Your task to perform on an android device: Turn on the flashlight Image 0: 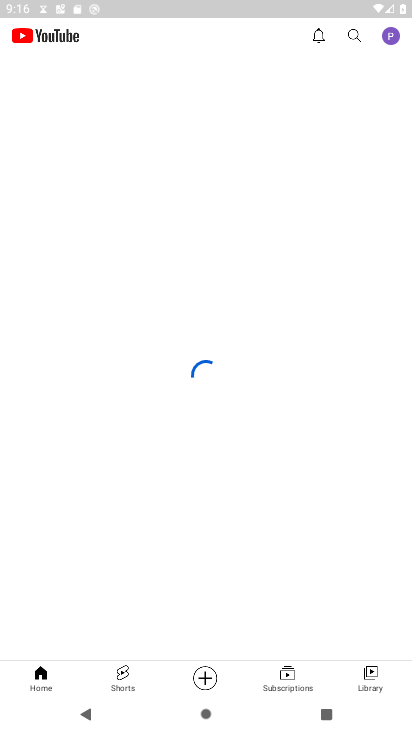
Step 0: click (47, 405)
Your task to perform on an android device: Turn on the flashlight Image 1: 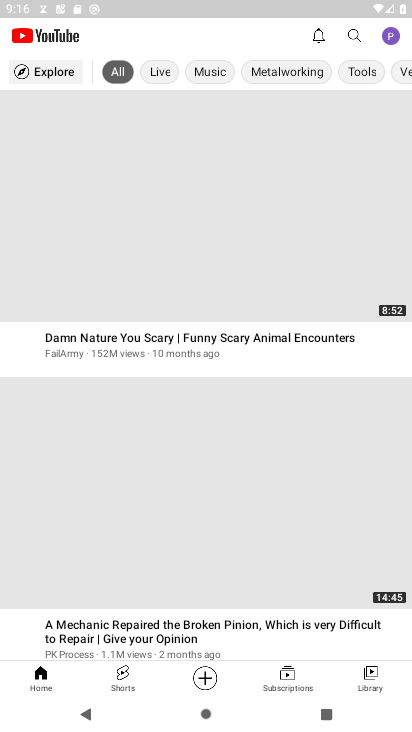
Step 1: press home button
Your task to perform on an android device: Turn on the flashlight Image 2: 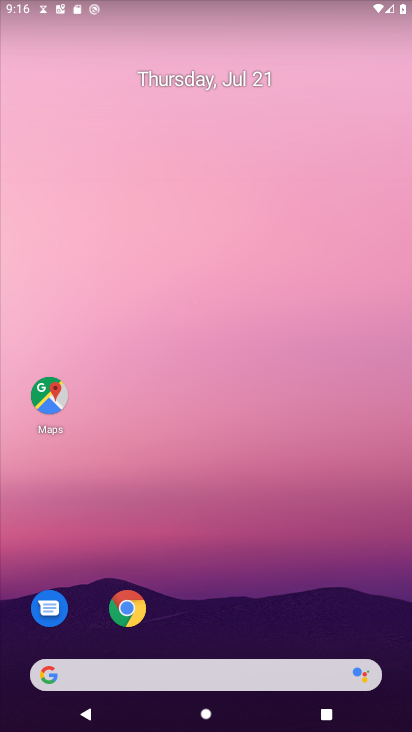
Step 2: click (48, 393)
Your task to perform on an android device: Turn on the flashlight Image 3: 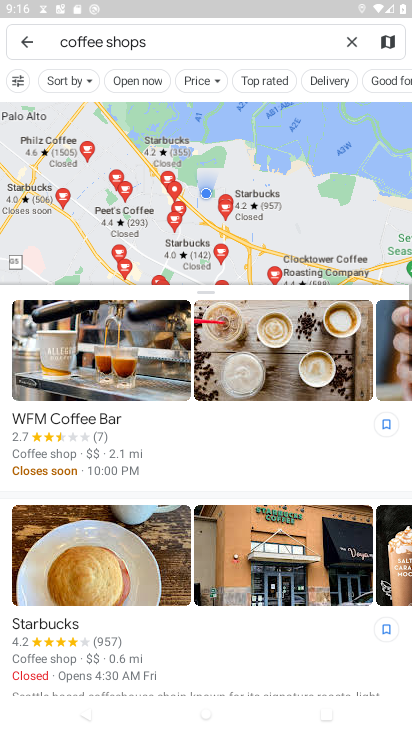
Step 3: click (28, 57)
Your task to perform on an android device: Turn on the flashlight Image 4: 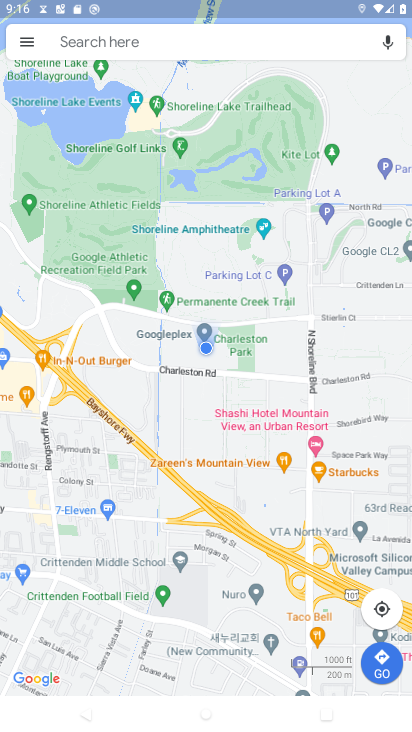
Step 4: click (257, 38)
Your task to perform on an android device: Turn on the flashlight Image 5: 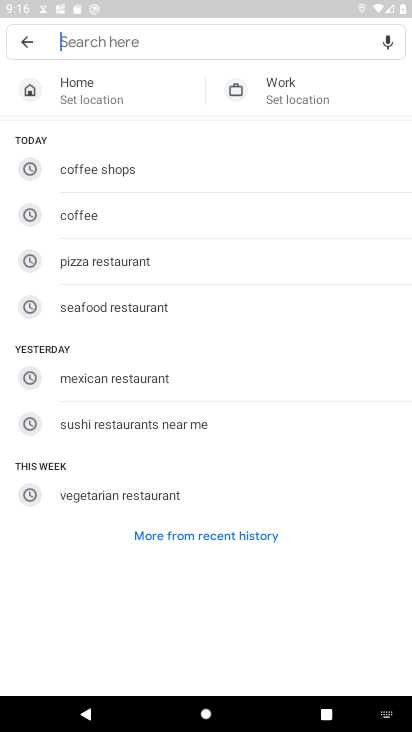
Step 5: type "sushi restaurants"
Your task to perform on an android device: Turn on the flashlight Image 6: 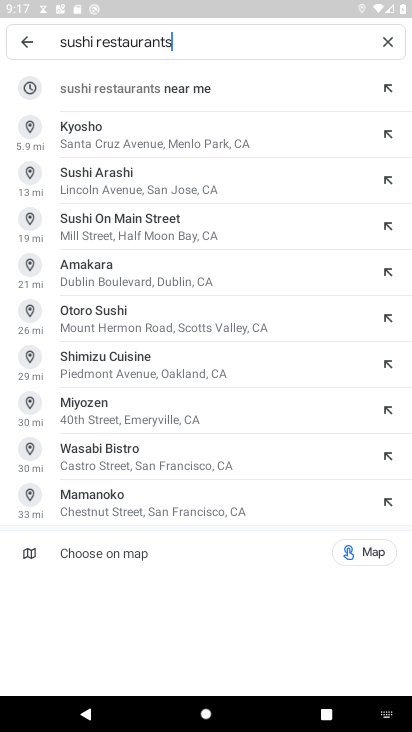
Step 6: click (223, 84)
Your task to perform on an android device: Turn on the flashlight Image 7: 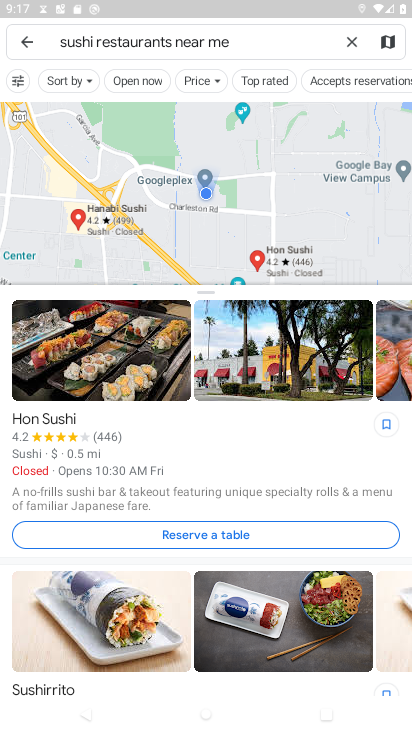
Step 7: task complete